Your task to perform on an android device: turn off translation in the chrome app Image 0: 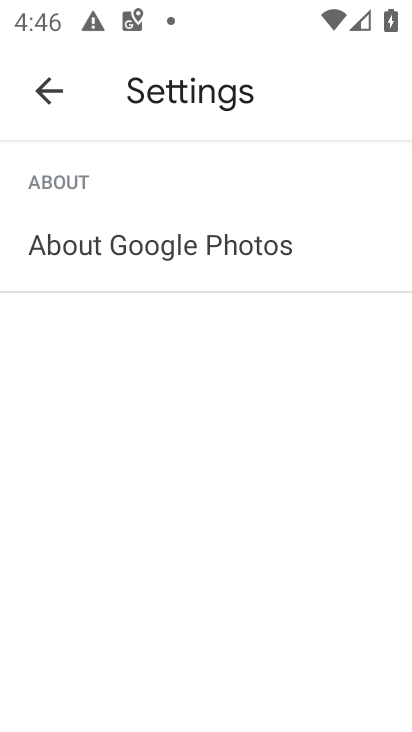
Step 0: press home button
Your task to perform on an android device: turn off translation in the chrome app Image 1: 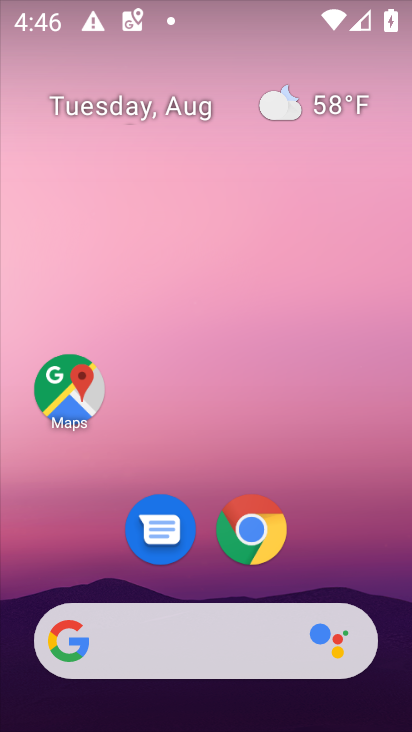
Step 1: click (268, 531)
Your task to perform on an android device: turn off translation in the chrome app Image 2: 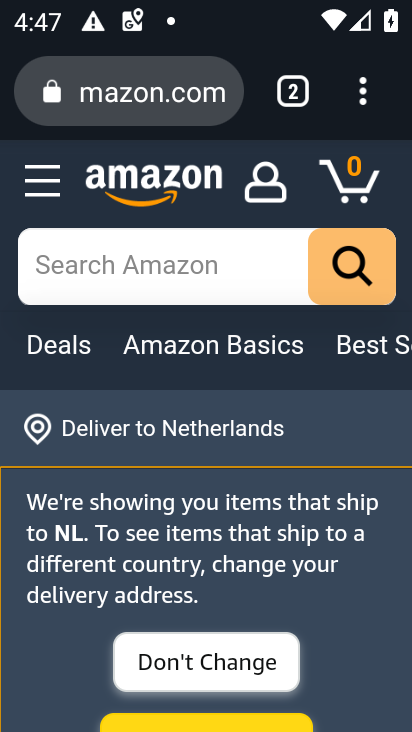
Step 2: click (372, 103)
Your task to perform on an android device: turn off translation in the chrome app Image 3: 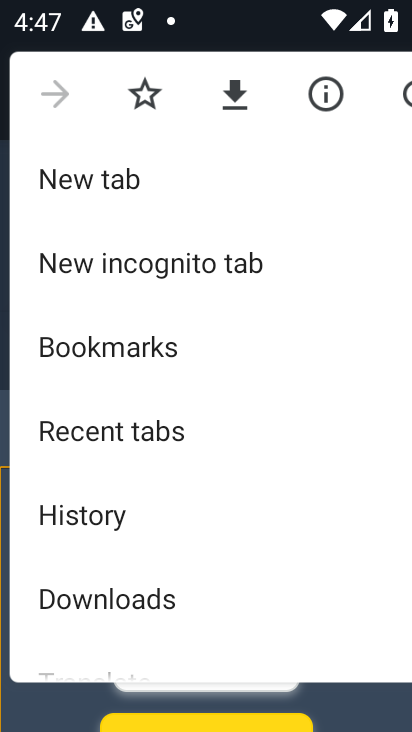
Step 3: drag from (146, 594) to (151, 269)
Your task to perform on an android device: turn off translation in the chrome app Image 4: 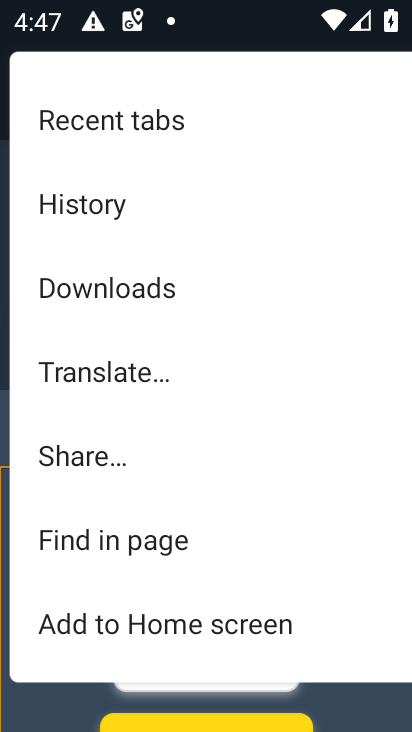
Step 4: drag from (139, 533) to (181, 197)
Your task to perform on an android device: turn off translation in the chrome app Image 5: 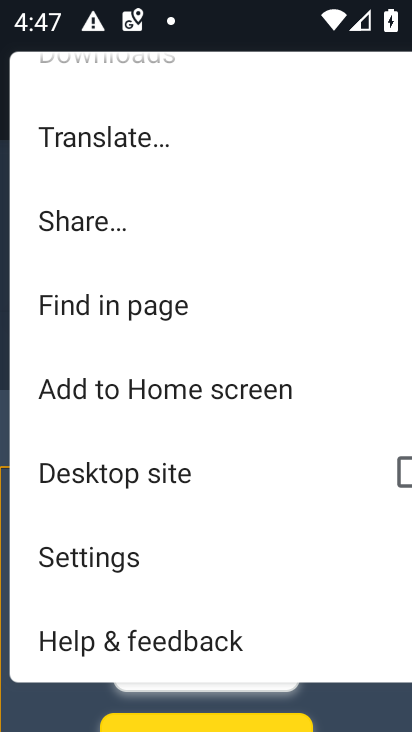
Step 5: click (88, 579)
Your task to perform on an android device: turn off translation in the chrome app Image 6: 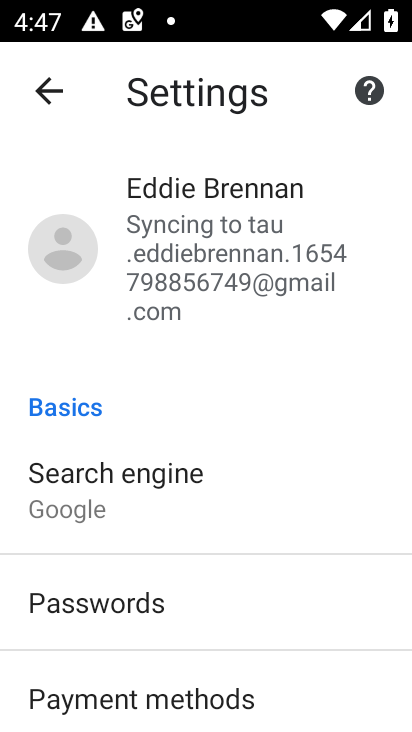
Step 6: drag from (179, 655) to (228, 267)
Your task to perform on an android device: turn off translation in the chrome app Image 7: 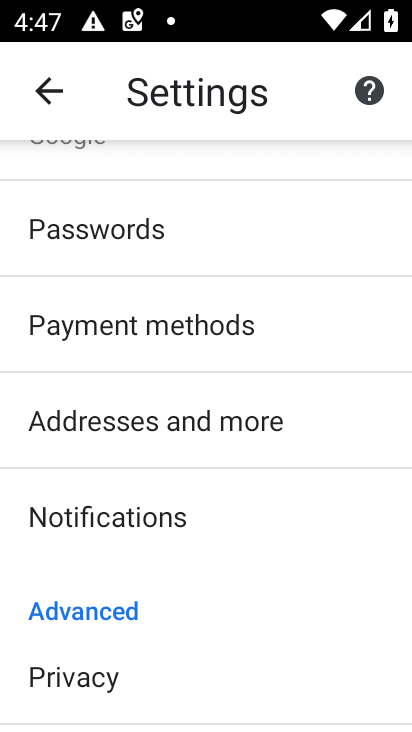
Step 7: drag from (211, 517) to (230, 333)
Your task to perform on an android device: turn off translation in the chrome app Image 8: 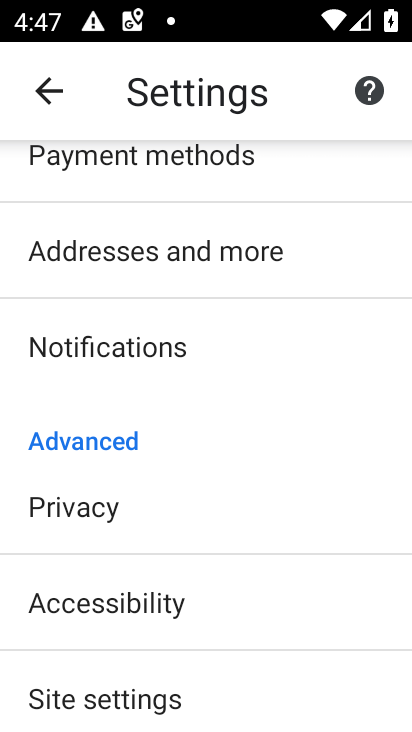
Step 8: drag from (195, 599) to (195, 341)
Your task to perform on an android device: turn off translation in the chrome app Image 9: 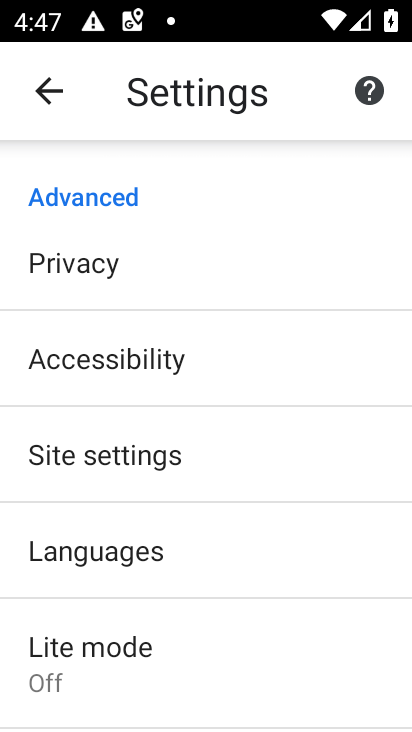
Step 9: click (150, 540)
Your task to perform on an android device: turn off translation in the chrome app Image 10: 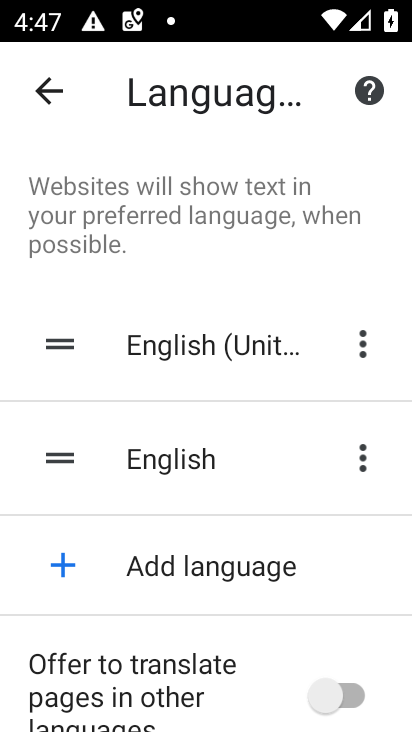
Step 10: task complete